Your task to perform on an android device: Go to display settings Image 0: 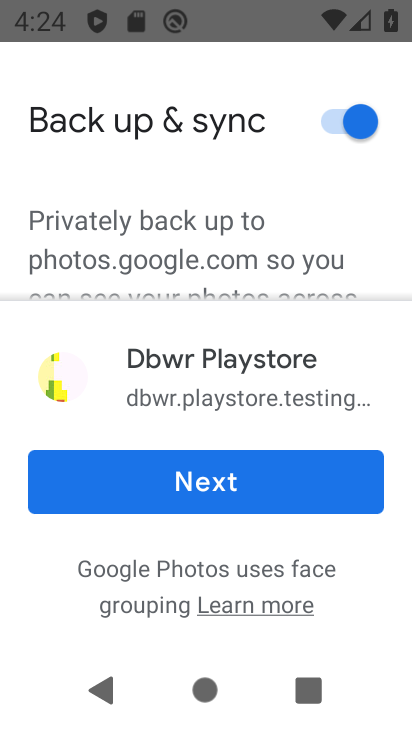
Step 0: press home button
Your task to perform on an android device: Go to display settings Image 1: 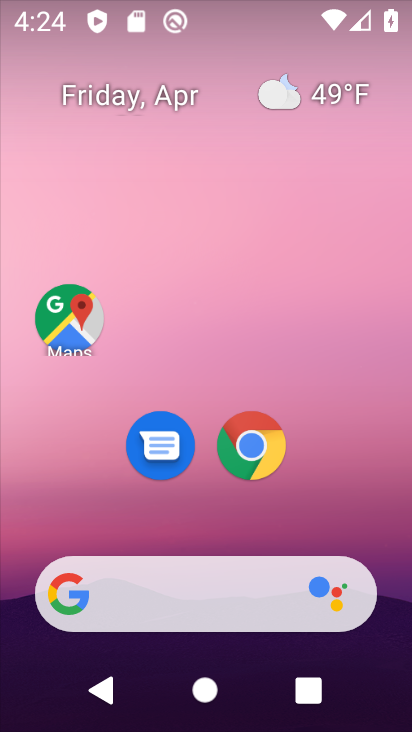
Step 1: drag from (336, 328) to (277, 18)
Your task to perform on an android device: Go to display settings Image 2: 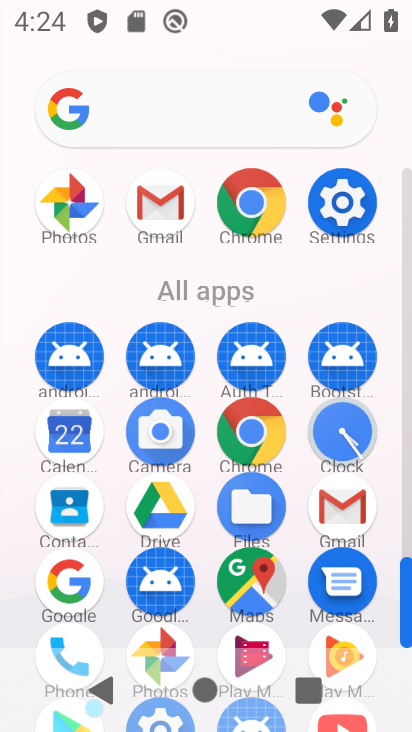
Step 2: click (342, 208)
Your task to perform on an android device: Go to display settings Image 3: 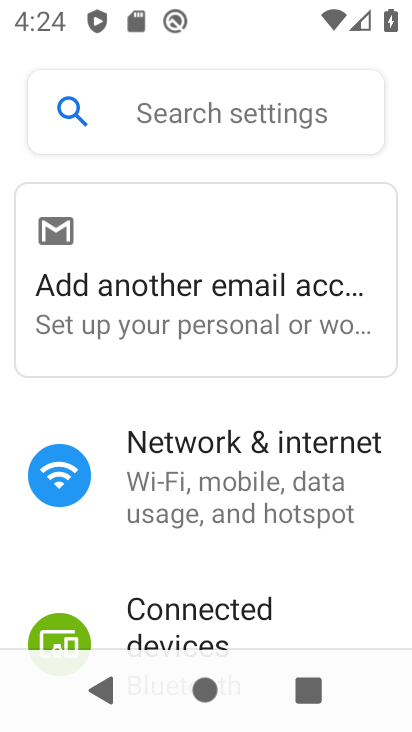
Step 3: drag from (232, 530) to (244, 236)
Your task to perform on an android device: Go to display settings Image 4: 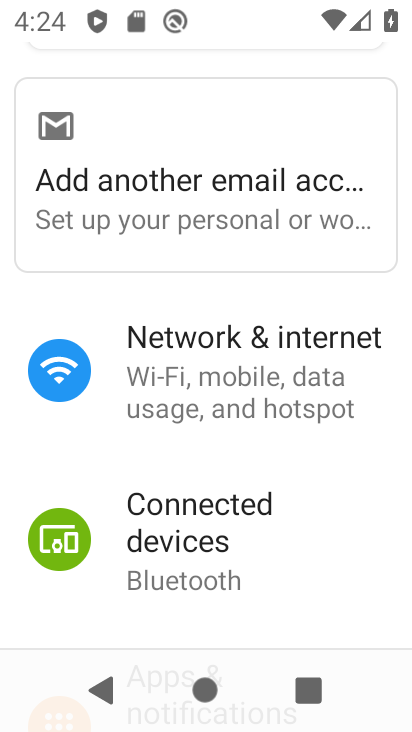
Step 4: drag from (229, 534) to (244, 188)
Your task to perform on an android device: Go to display settings Image 5: 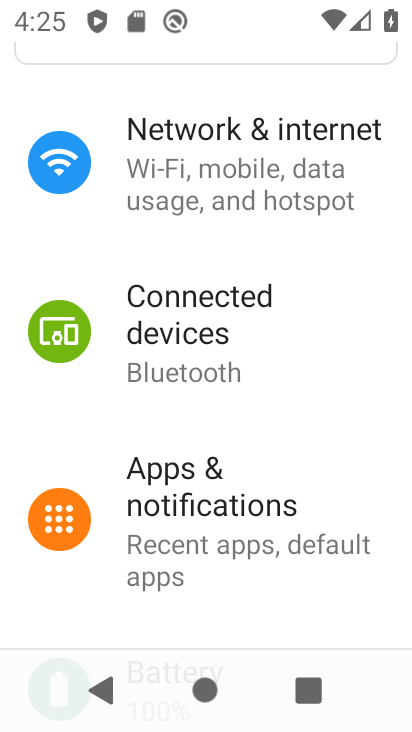
Step 5: drag from (276, 442) to (301, 153)
Your task to perform on an android device: Go to display settings Image 6: 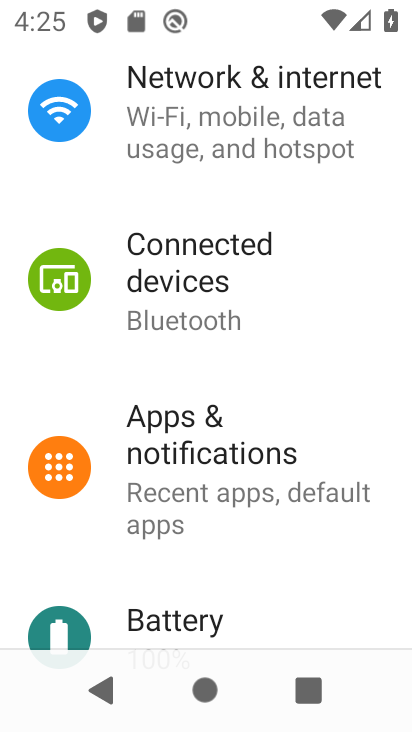
Step 6: drag from (251, 542) to (265, 170)
Your task to perform on an android device: Go to display settings Image 7: 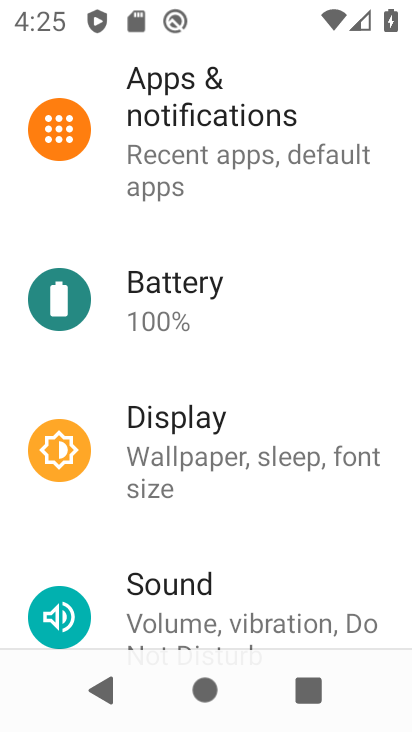
Step 7: click (160, 435)
Your task to perform on an android device: Go to display settings Image 8: 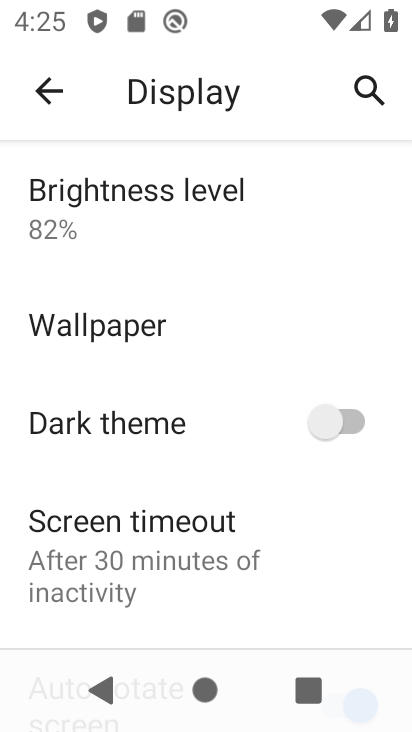
Step 8: task complete